Your task to perform on an android device: turn pop-ups on in chrome Image 0: 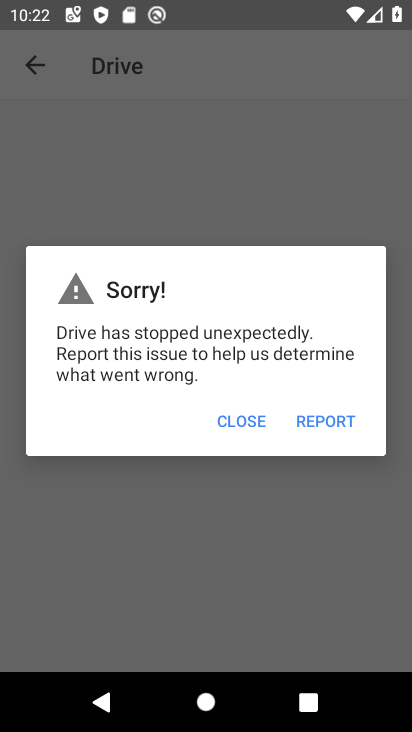
Step 0: press home button
Your task to perform on an android device: turn pop-ups on in chrome Image 1: 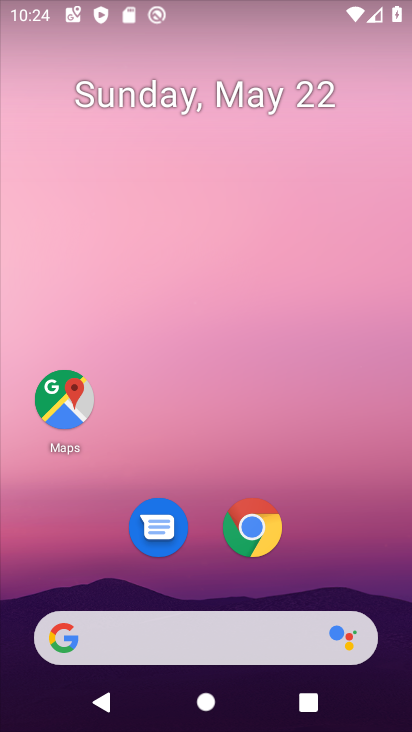
Step 1: click (262, 531)
Your task to perform on an android device: turn pop-ups on in chrome Image 2: 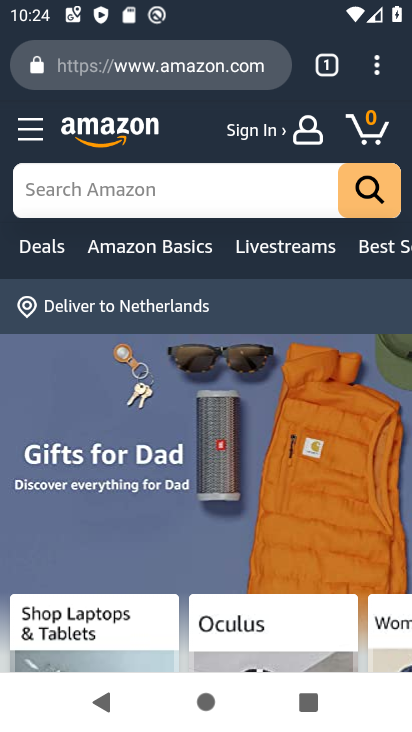
Step 2: click (384, 60)
Your task to perform on an android device: turn pop-ups on in chrome Image 3: 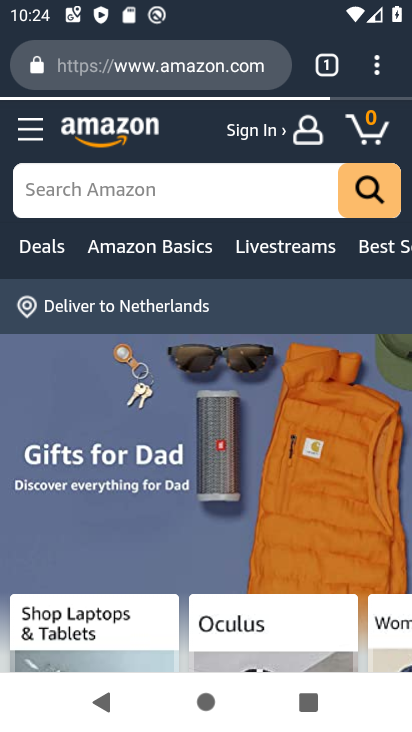
Step 3: click (380, 57)
Your task to perform on an android device: turn pop-ups on in chrome Image 4: 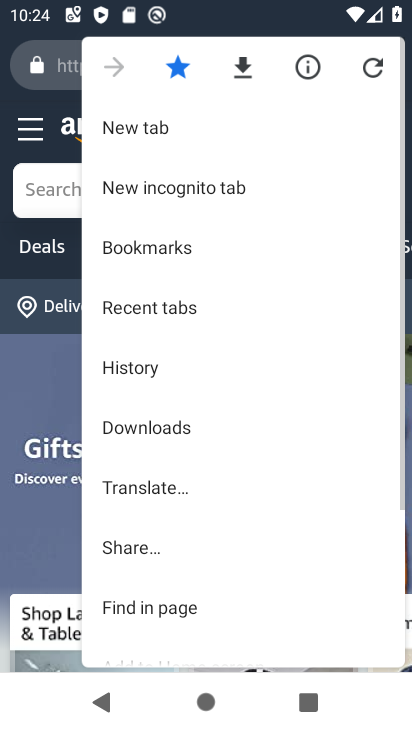
Step 4: drag from (179, 623) to (226, 314)
Your task to perform on an android device: turn pop-ups on in chrome Image 5: 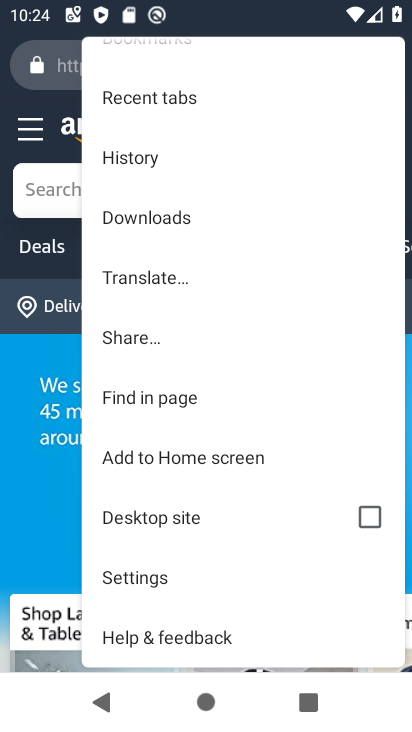
Step 5: click (177, 568)
Your task to perform on an android device: turn pop-ups on in chrome Image 6: 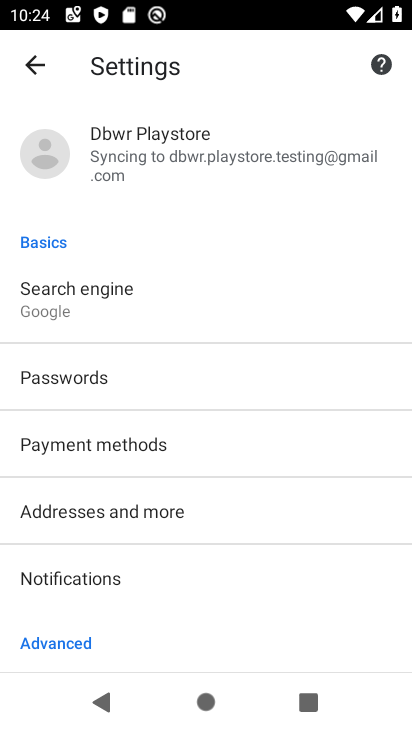
Step 6: drag from (147, 625) to (181, 368)
Your task to perform on an android device: turn pop-ups on in chrome Image 7: 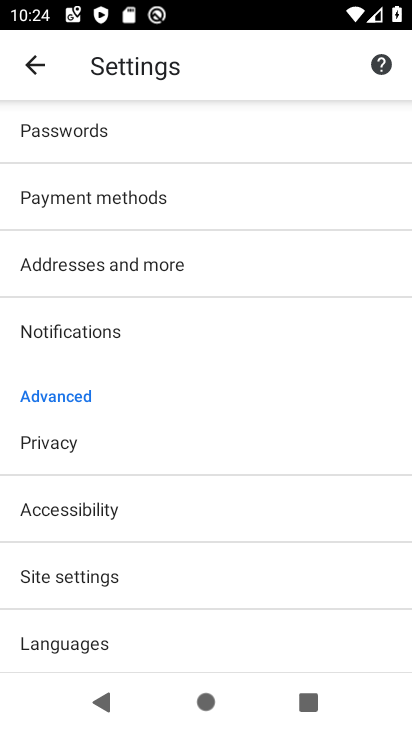
Step 7: click (90, 578)
Your task to perform on an android device: turn pop-ups on in chrome Image 8: 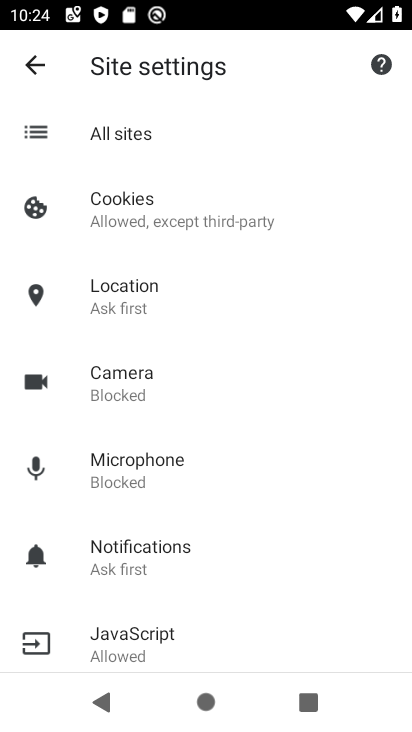
Step 8: drag from (175, 569) to (231, 261)
Your task to perform on an android device: turn pop-ups on in chrome Image 9: 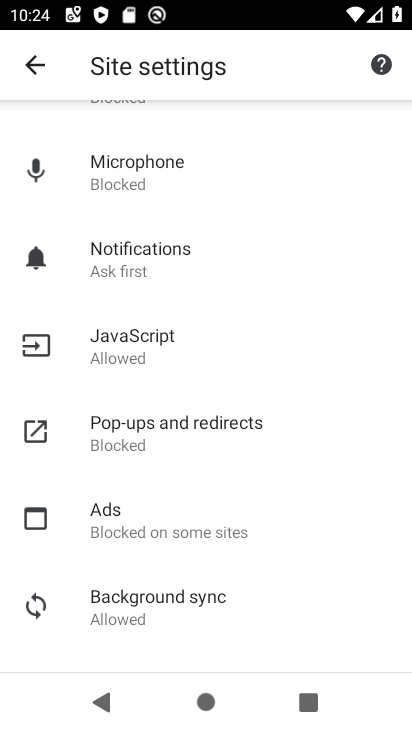
Step 9: click (199, 419)
Your task to perform on an android device: turn pop-ups on in chrome Image 10: 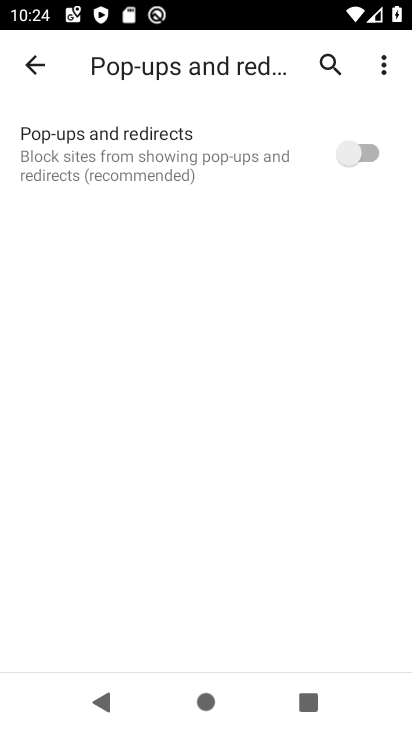
Step 10: click (324, 149)
Your task to perform on an android device: turn pop-ups on in chrome Image 11: 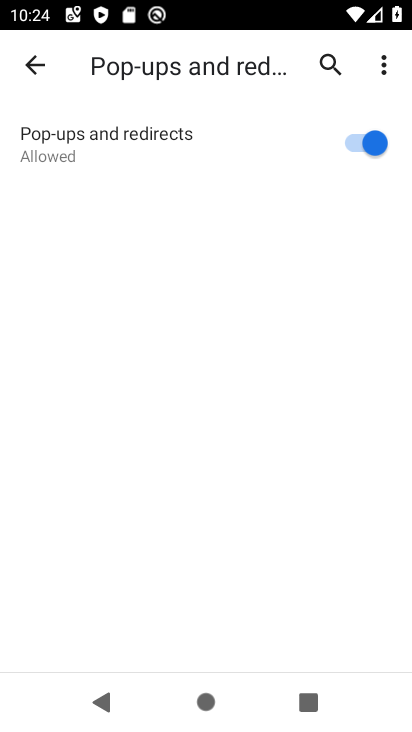
Step 11: task complete